Your task to perform on an android device: allow cookies in the chrome app Image 0: 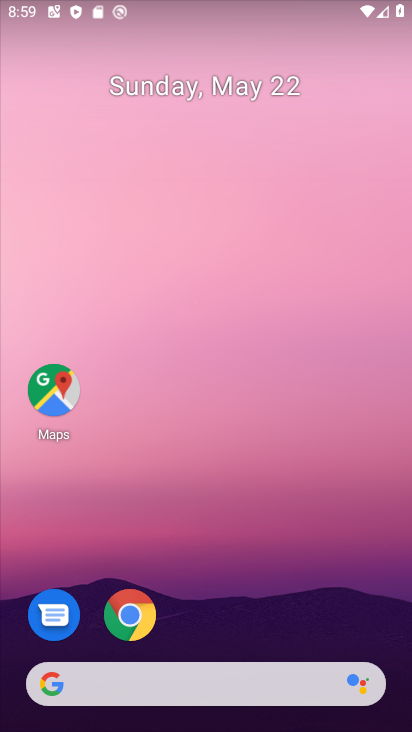
Step 0: drag from (237, 577) to (291, 297)
Your task to perform on an android device: allow cookies in the chrome app Image 1: 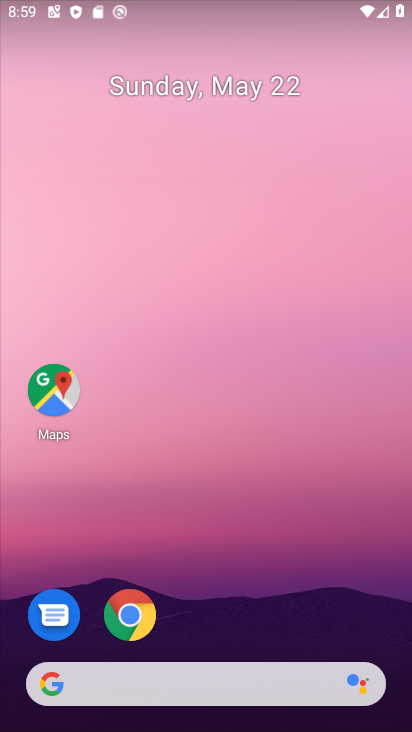
Step 1: drag from (220, 575) to (278, 289)
Your task to perform on an android device: allow cookies in the chrome app Image 2: 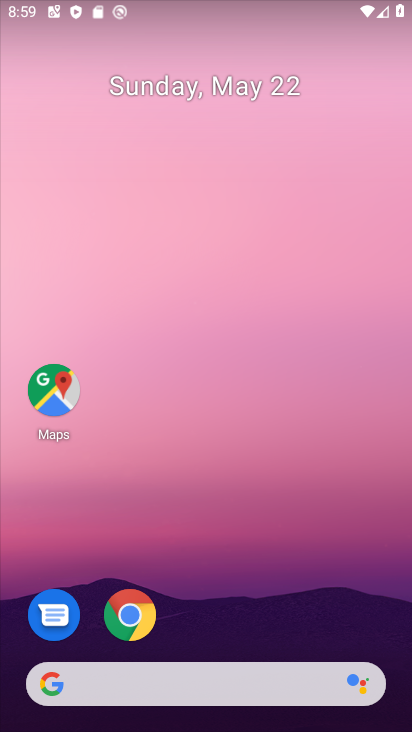
Step 2: drag from (182, 681) to (229, 206)
Your task to perform on an android device: allow cookies in the chrome app Image 3: 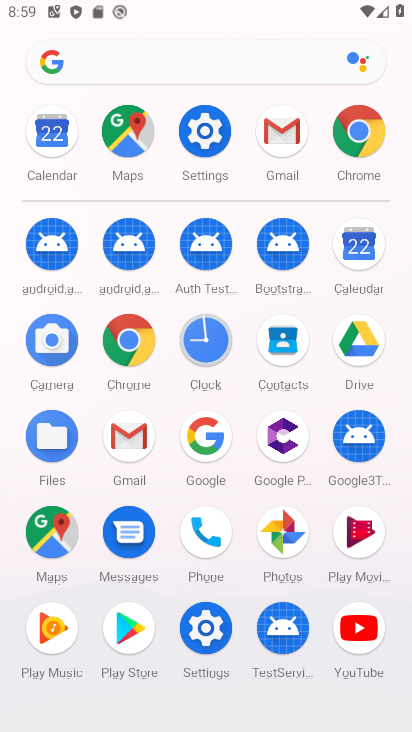
Step 3: click (206, 125)
Your task to perform on an android device: allow cookies in the chrome app Image 4: 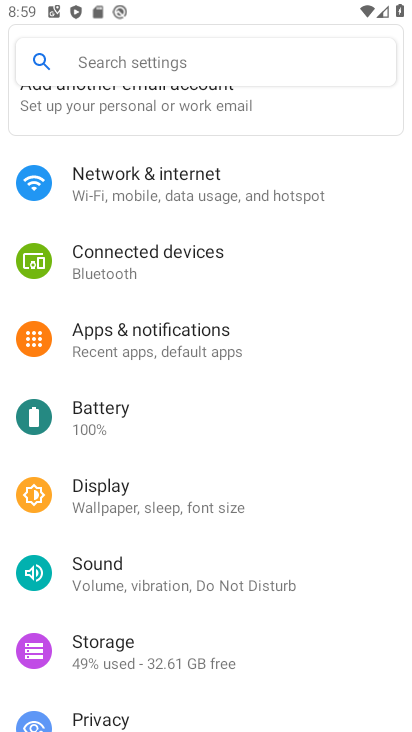
Step 4: press home button
Your task to perform on an android device: allow cookies in the chrome app Image 5: 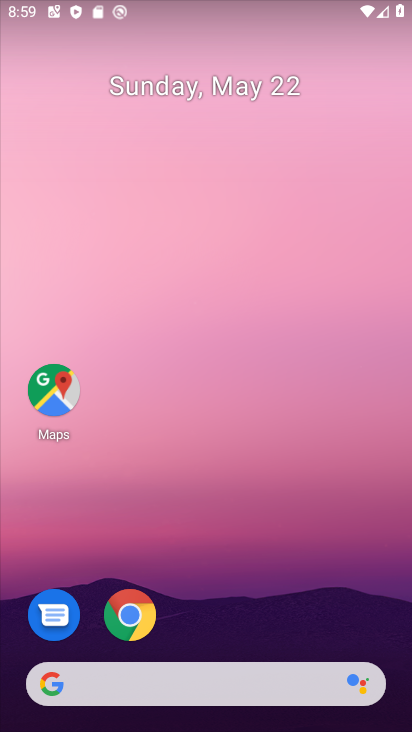
Step 5: drag from (234, 593) to (257, 223)
Your task to perform on an android device: allow cookies in the chrome app Image 6: 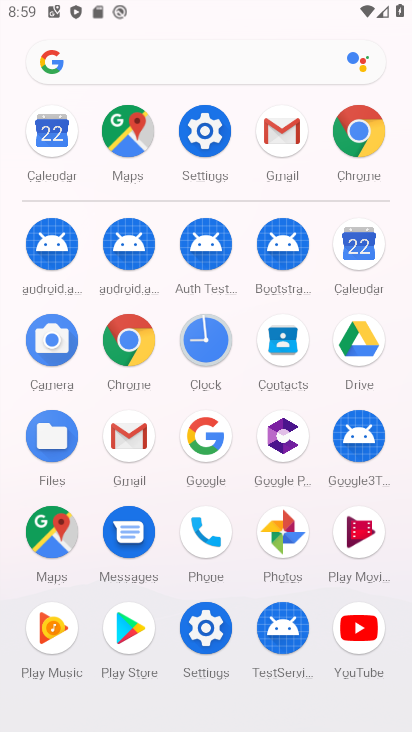
Step 6: click (142, 331)
Your task to perform on an android device: allow cookies in the chrome app Image 7: 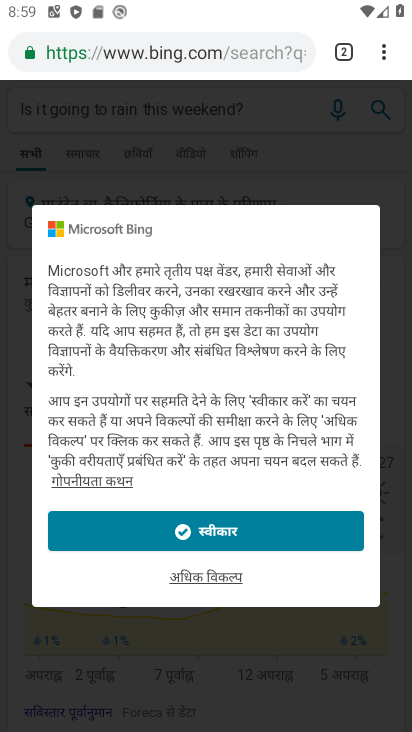
Step 7: click (395, 41)
Your task to perform on an android device: allow cookies in the chrome app Image 8: 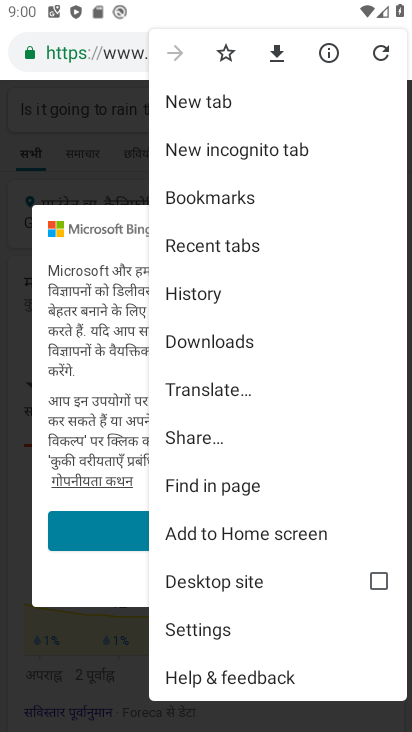
Step 8: click (194, 636)
Your task to perform on an android device: allow cookies in the chrome app Image 9: 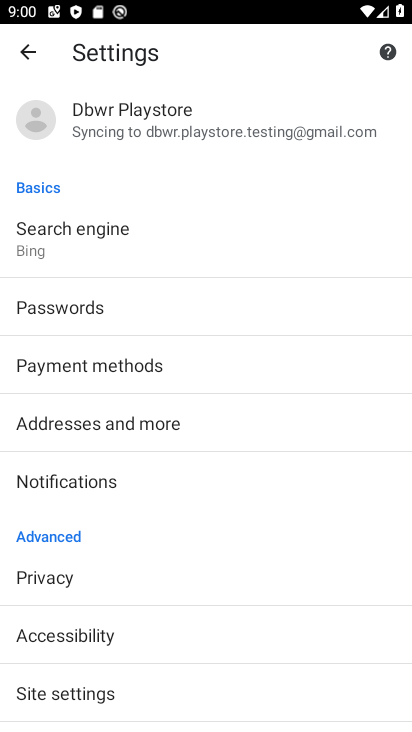
Step 9: drag from (116, 604) to (187, 241)
Your task to perform on an android device: allow cookies in the chrome app Image 10: 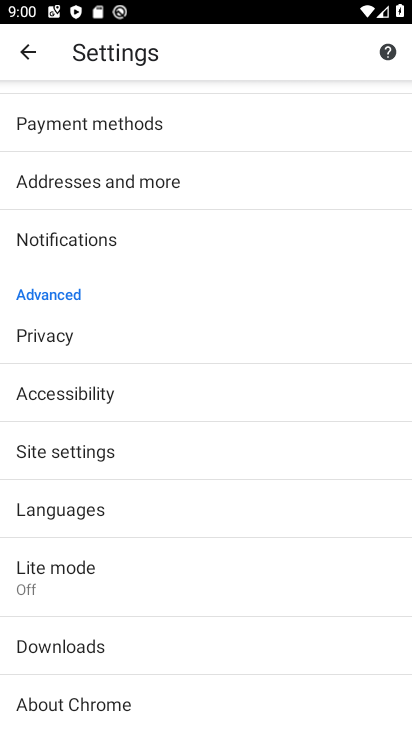
Step 10: click (97, 327)
Your task to perform on an android device: allow cookies in the chrome app Image 11: 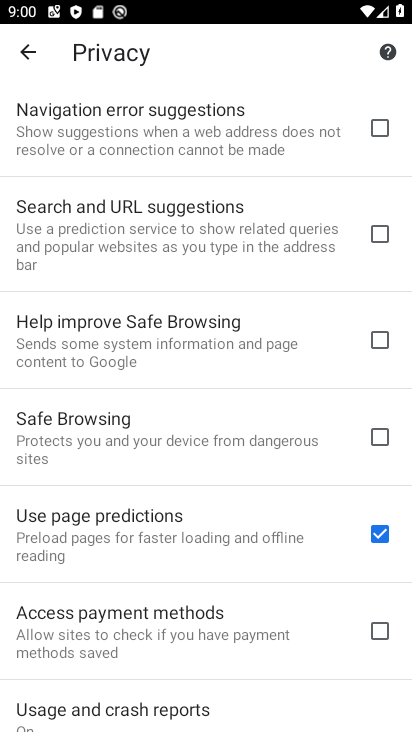
Step 11: drag from (92, 165) to (92, 446)
Your task to perform on an android device: allow cookies in the chrome app Image 12: 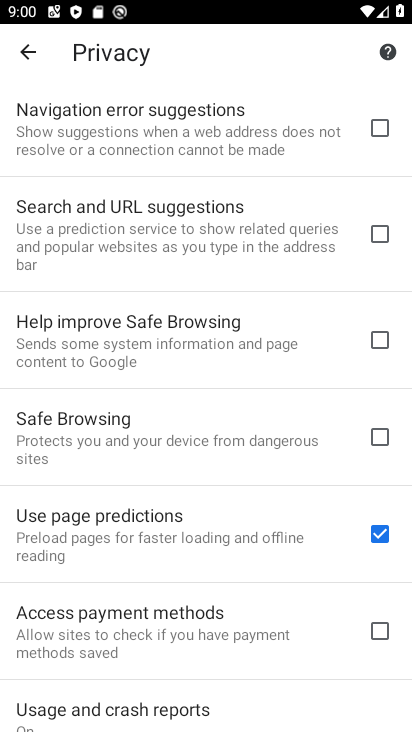
Step 12: click (10, 43)
Your task to perform on an android device: allow cookies in the chrome app Image 13: 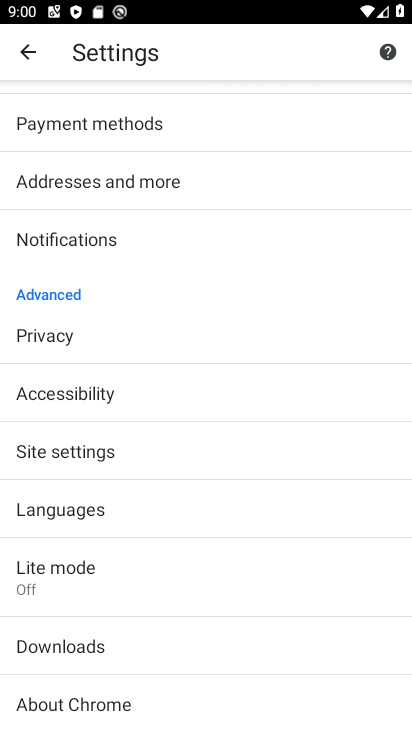
Step 13: drag from (172, 239) to (202, 546)
Your task to perform on an android device: allow cookies in the chrome app Image 14: 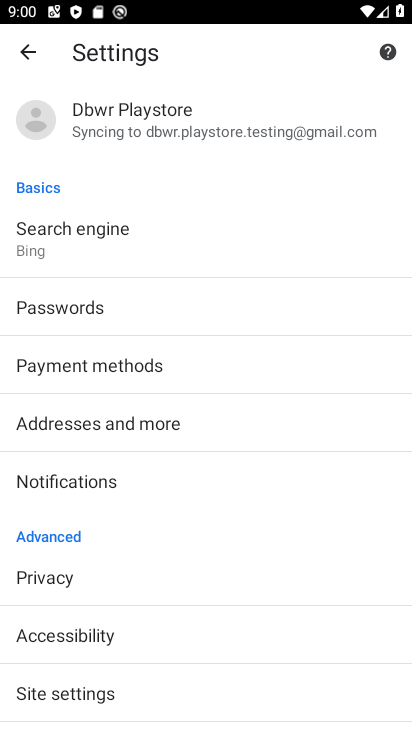
Step 14: click (112, 692)
Your task to perform on an android device: allow cookies in the chrome app Image 15: 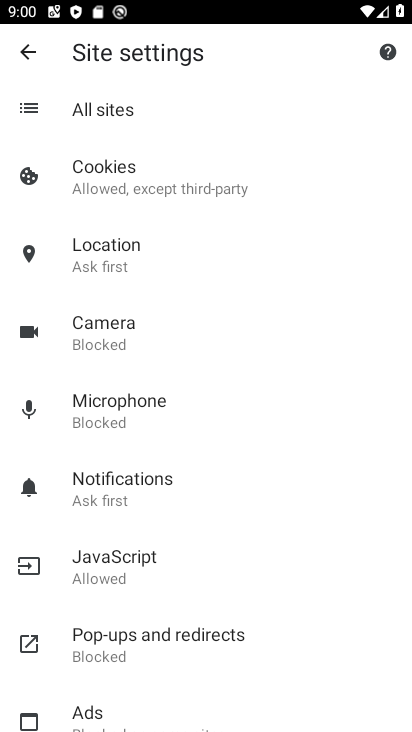
Step 15: click (155, 120)
Your task to perform on an android device: allow cookies in the chrome app Image 16: 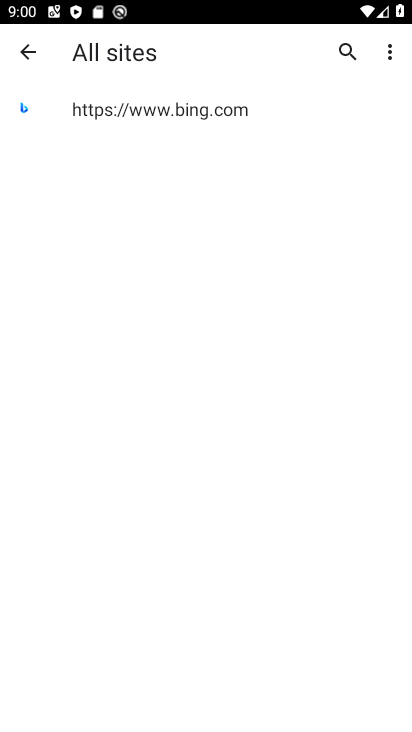
Step 16: click (167, 167)
Your task to perform on an android device: allow cookies in the chrome app Image 17: 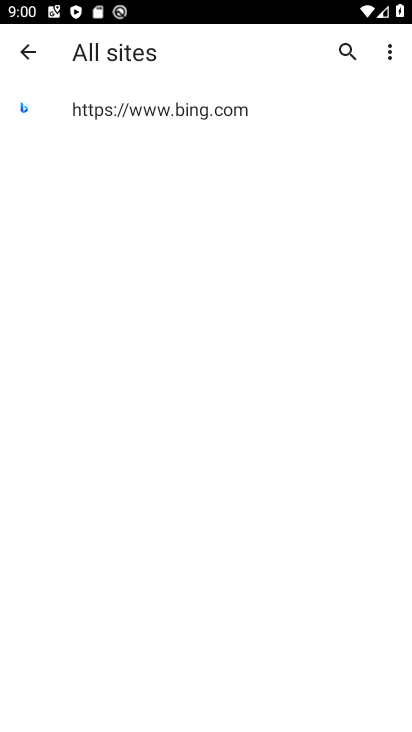
Step 17: click (28, 45)
Your task to perform on an android device: allow cookies in the chrome app Image 18: 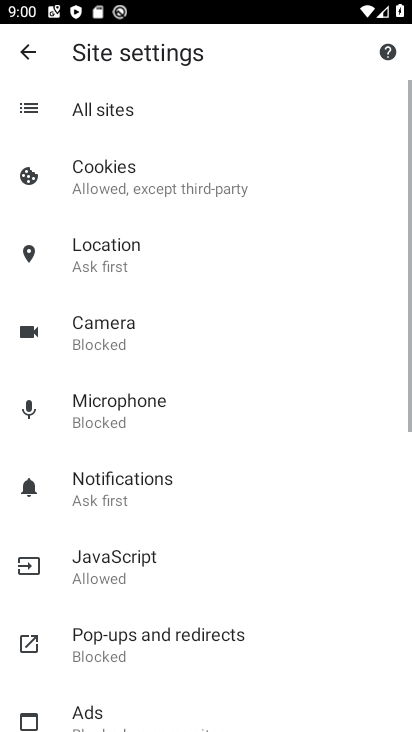
Step 18: click (143, 162)
Your task to perform on an android device: allow cookies in the chrome app Image 19: 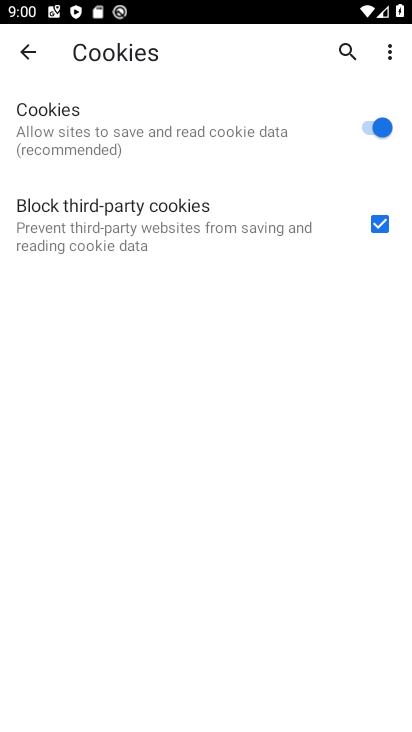
Step 19: task complete